Your task to perform on an android device: find photos in the google photos app Image 0: 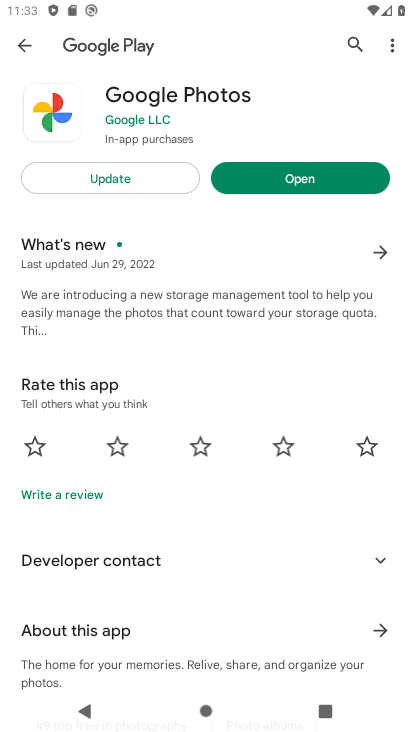
Step 0: click (300, 183)
Your task to perform on an android device: find photos in the google photos app Image 1: 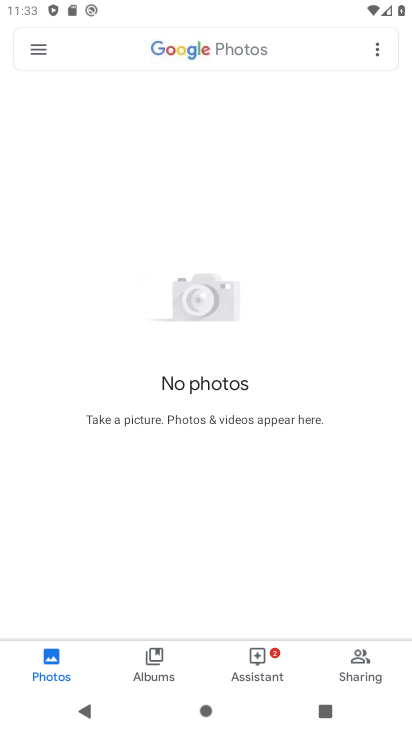
Step 1: task complete